Your task to perform on an android device: turn vacation reply on in the gmail app Image 0: 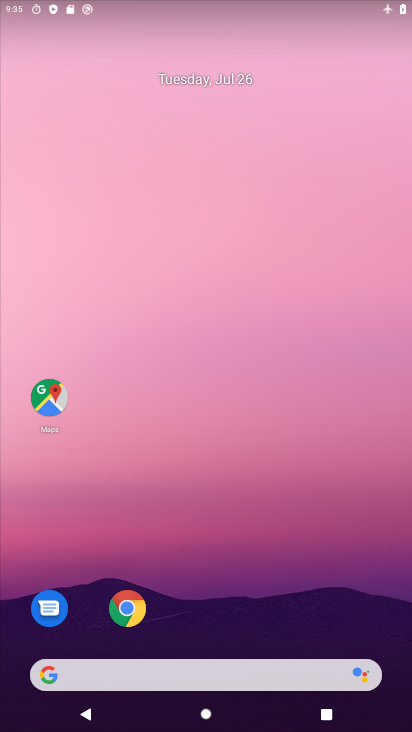
Step 0: drag from (211, 600) to (199, 11)
Your task to perform on an android device: turn vacation reply on in the gmail app Image 1: 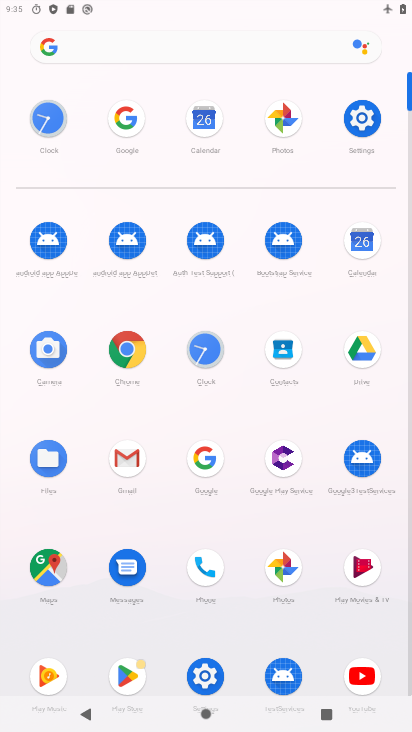
Step 1: click (140, 468)
Your task to perform on an android device: turn vacation reply on in the gmail app Image 2: 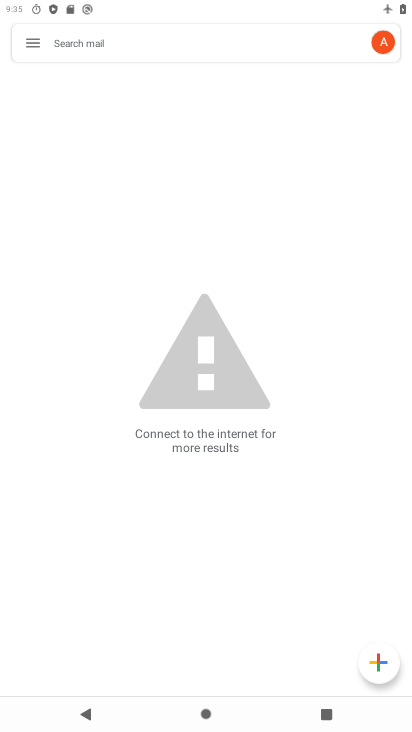
Step 2: click (31, 29)
Your task to perform on an android device: turn vacation reply on in the gmail app Image 3: 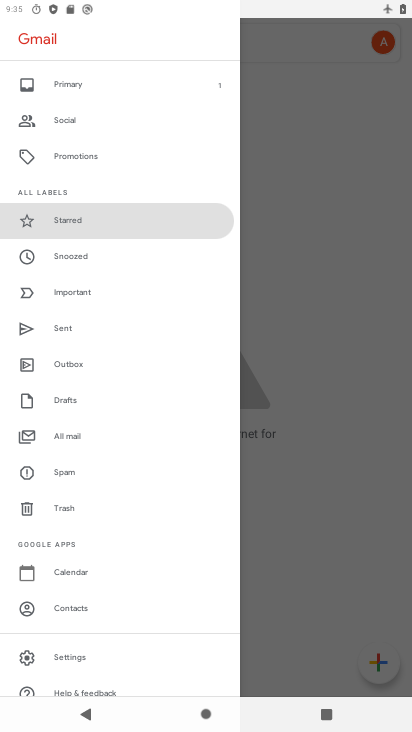
Step 3: click (75, 651)
Your task to perform on an android device: turn vacation reply on in the gmail app Image 4: 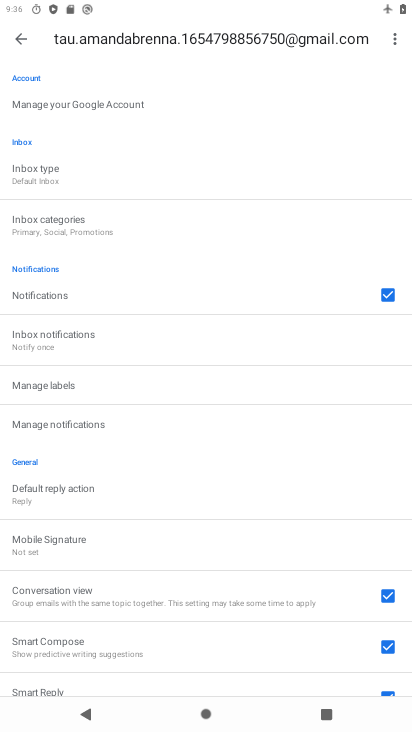
Step 4: drag from (153, 572) to (162, 274)
Your task to perform on an android device: turn vacation reply on in the gmail app Image 5: 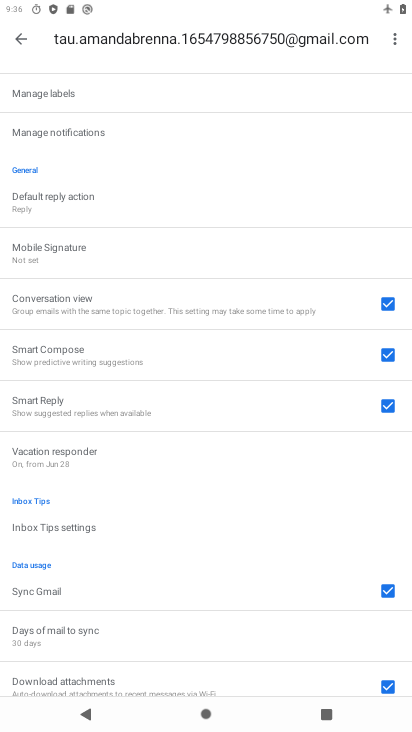
Step 5: click (91, 453)
Your task to perform on an android device: turn vacation reply on in the gmail app Image 6: 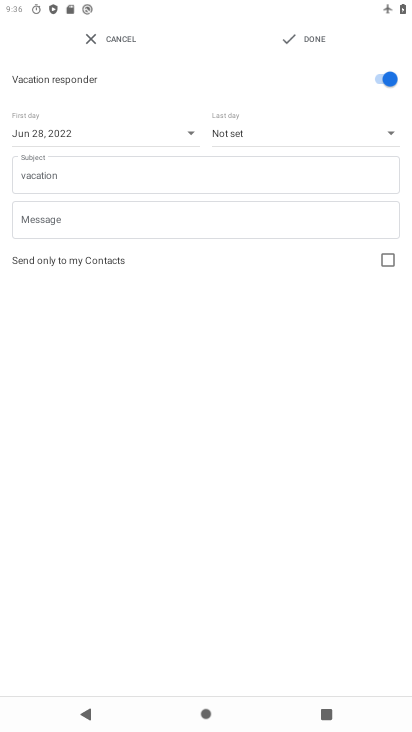
Step 6: task complete